Your task to perform on an android device: see sites visited before in the chrome app Image 0: 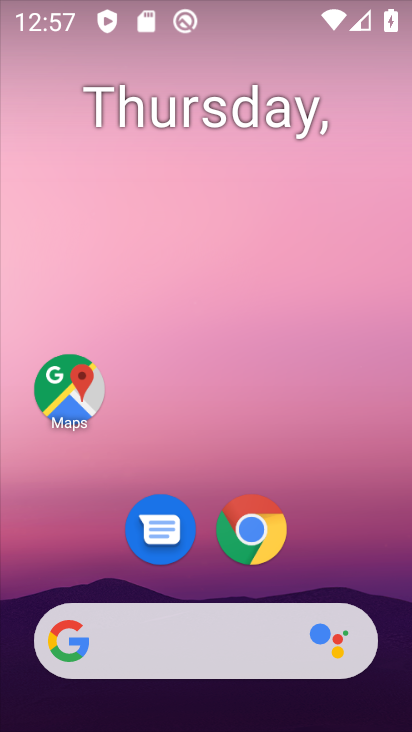
Step 0: click (253, 529)
Your task to perform on an android device: see sites visited before in the chrome app Image 1: 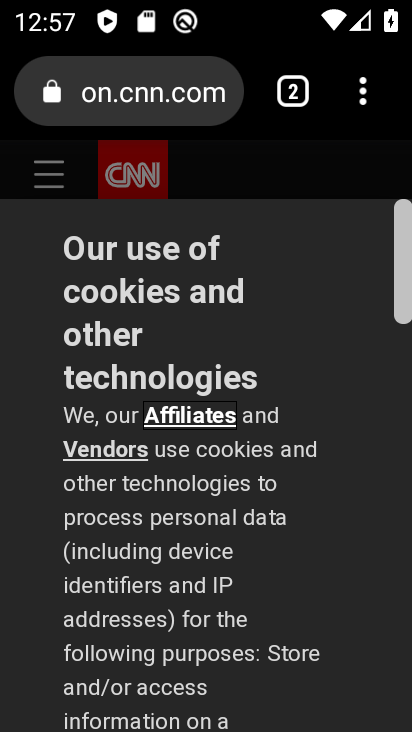
Step 1: task complete